Your task to perform on an android device: check google app version Image 0: 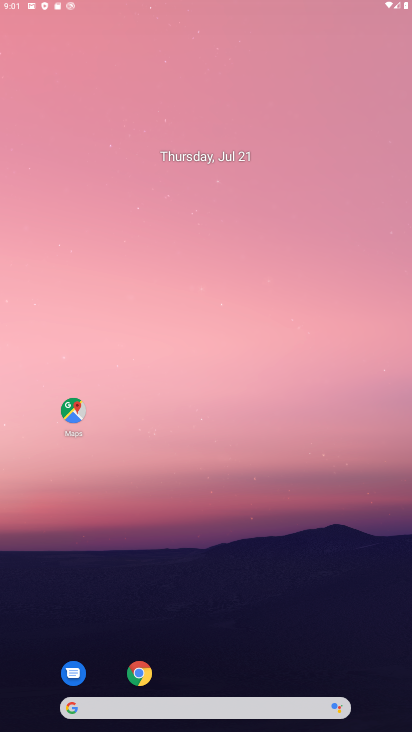
Step 0: drag from (196, 609) to (247, 0)
Your task to perform on an android device: check google app version Image 1: 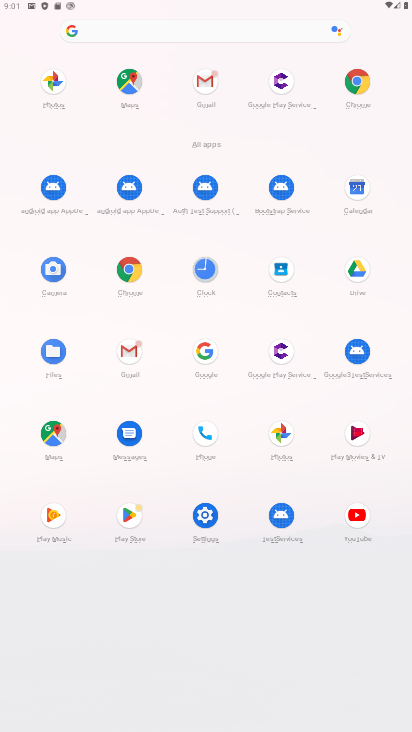
Step 1: click (201, 351)
Your task to perform on an android device: check google app version Image 2: 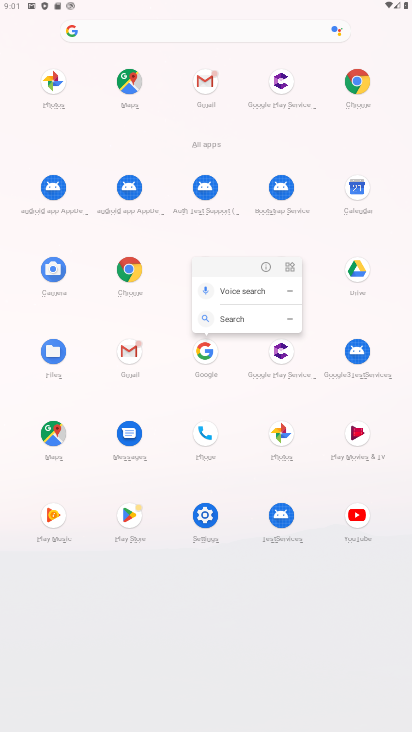
Step 2: click (265, 268)
Your task to perform on an android device: check google app version Image 3: 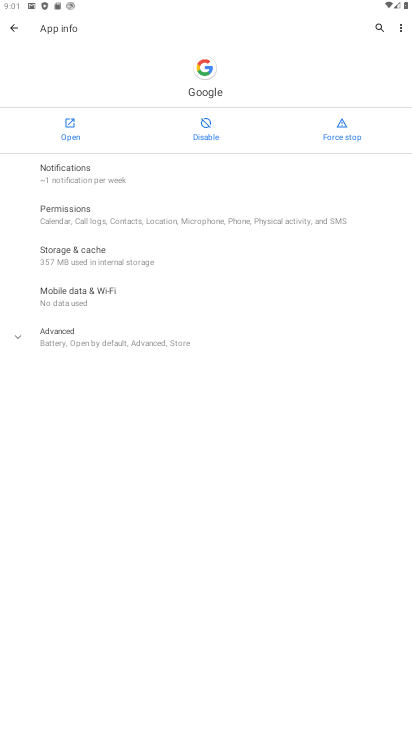
Step 3: click (63, 127)
Your task to perform on an android device: check google app version Image 4: 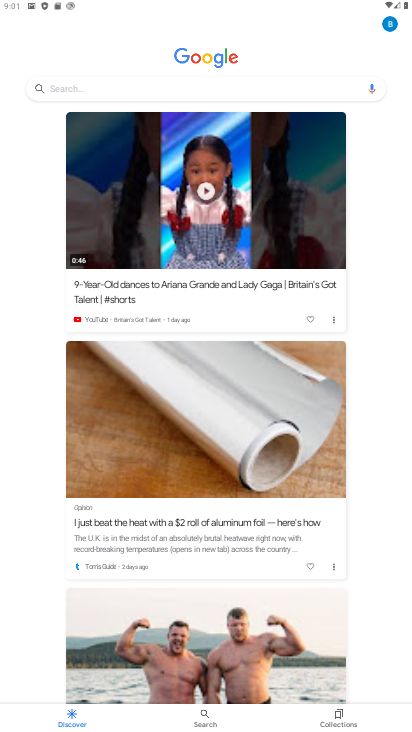
Step 4: click (388, 23)
Your task to perform on an android device: check google app version Image 5: 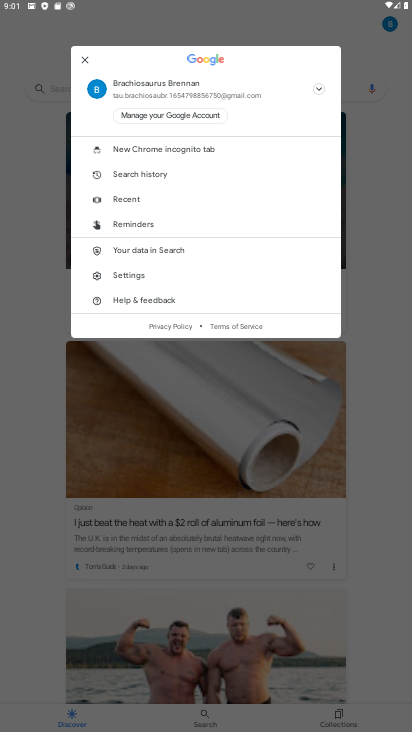
Step 5: click (116, 275)
Your task to perform on an android device: check google app version Image 6: 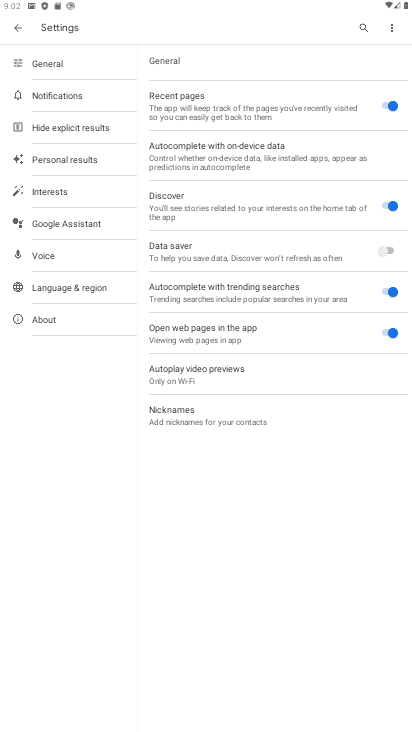
Step 6: click (42, 330)
Your task to perform on an android device: check google app version Image 7: 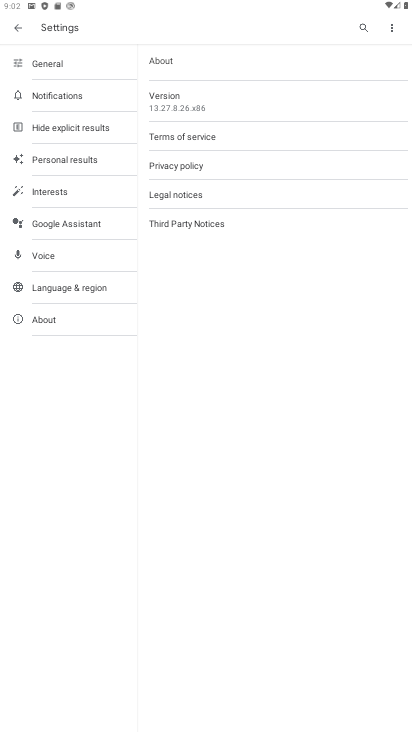
Step 7: click (187, 96)
Your task to perform on an android device: check google app version Image 8: 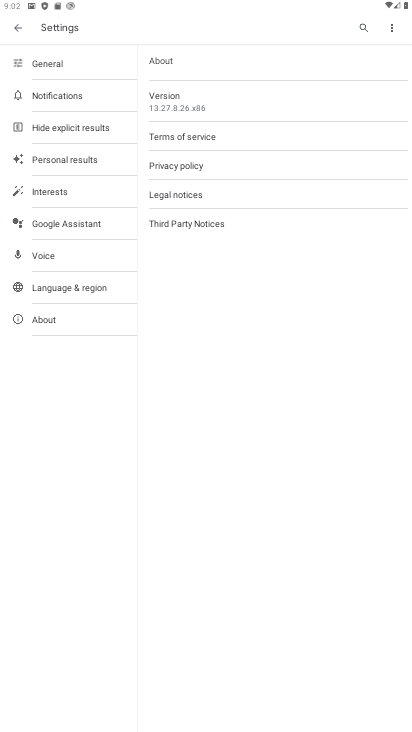
Step 8: task complete